Your task to perform on an android device: open chrome privacy settings Image 0: 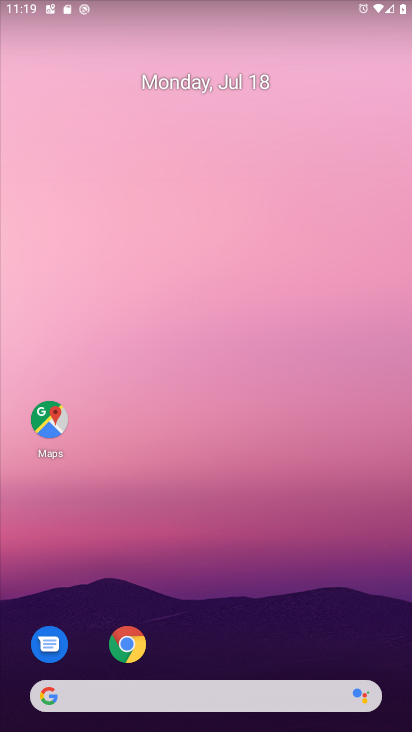
Step 0: click (119, 652)
Your task to perform on an android device: open chrome privacy settings Image 1: 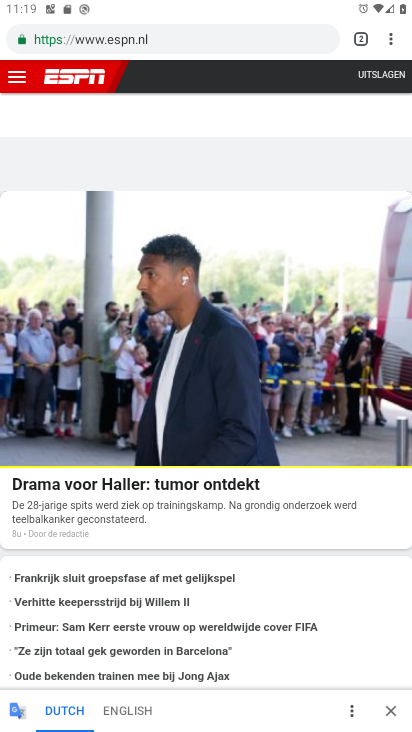
Step 1: click (388, 39)
Your task to perform on an android device: open chrome privacy settings Image 2: 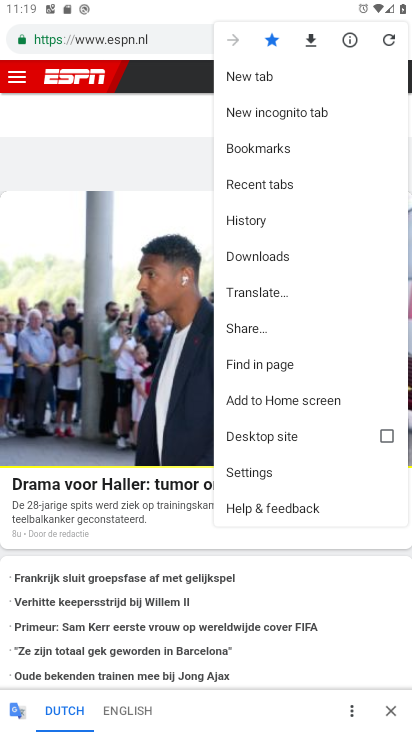
Step 2: click (245, 463)
Your task to perform on an android device: open chrome privacy settings Image 3: 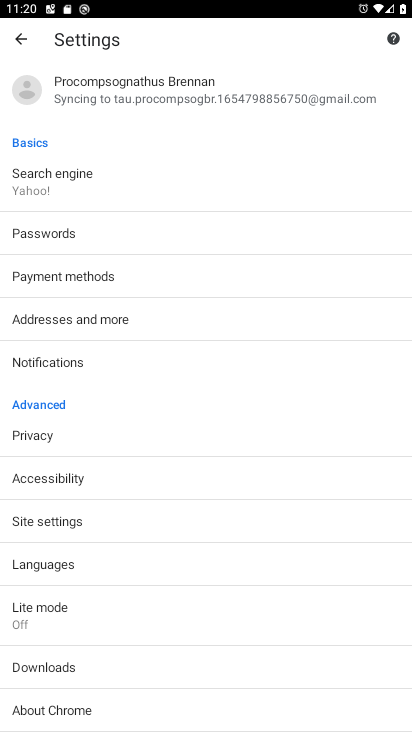
Step 3: click (50, 428)
Your task to perform on an android device: open chrome privacy settings Image 4: 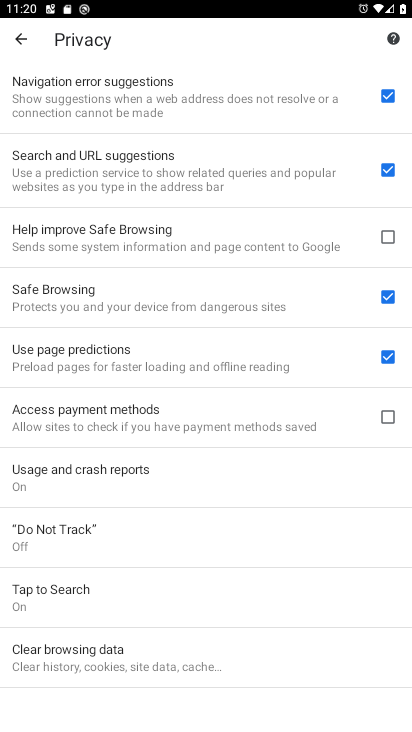
Step 4: task complete